Your task to perform on an android device: turn on javascript in the chrome app Image 0: 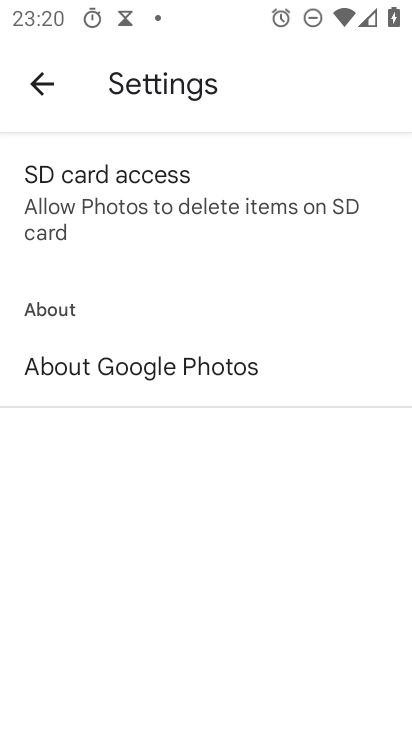
Step 0: press home button
Your task to perform on an android device: turn on javascript in the chrome app Image 1: 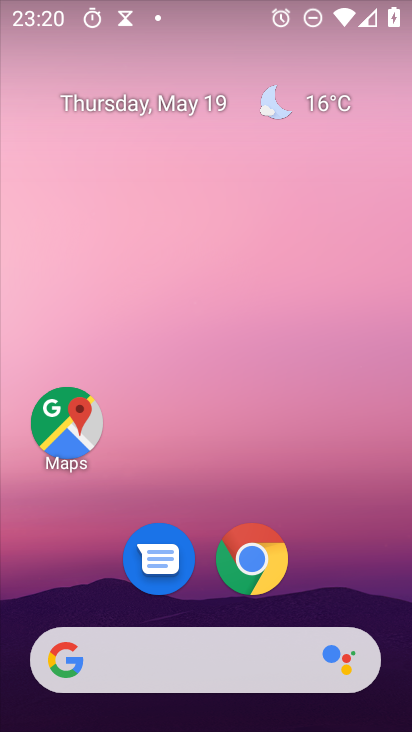
Step 1: click (254, 557)
Your task to perform on an android device: turn on javascript in the chrome app Image 2: 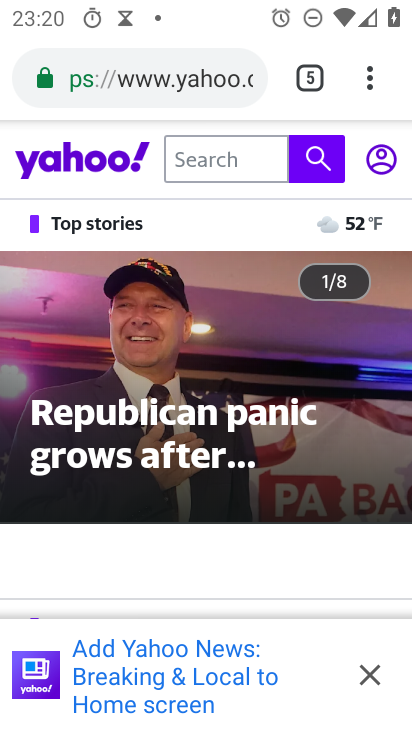
Step 2: click (369, 88)
Your task to perform on an android device: turn on javascript in the chrome app Image 3: 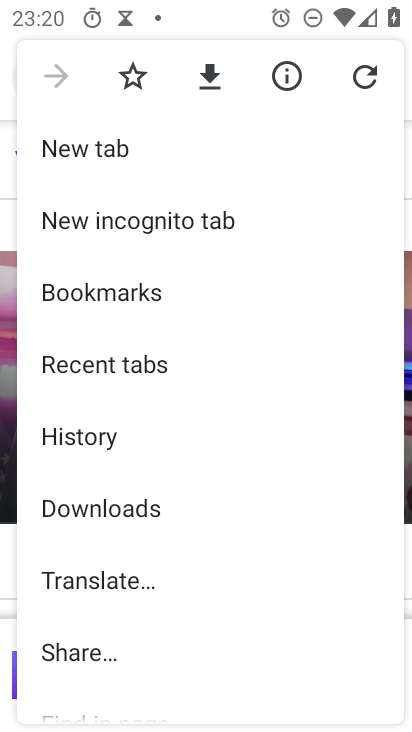
Step 3: drag from (111, 618) to (133, 287)
Your task to perform on an android device: turn on javascript in the chrome app Image 4: 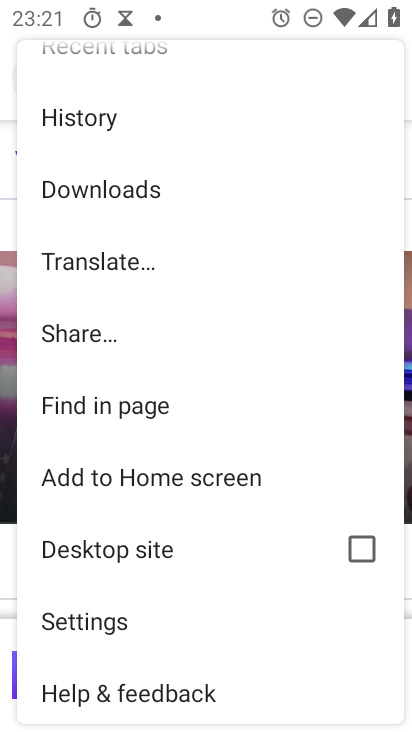
Step 4: click (103, 612)
Your task to perform on an android device: turn on javascript in the chrome app Image 5: 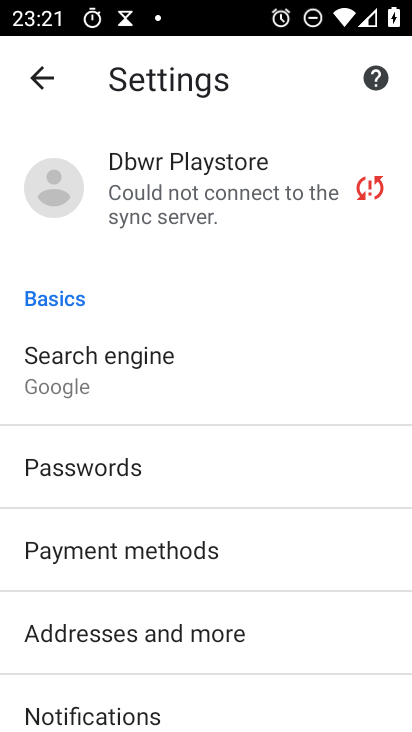
Step 5: drag from (108, 609) to (102, 393)
Your task to perform on an android device: turn on javascript in the chrome app Image 6: 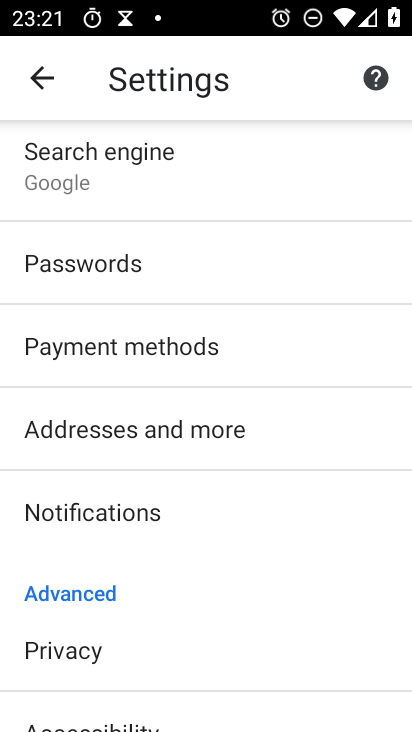
Step 6: drag from (94, 615) to (83, 346)
Your task to perform on an android device: turn on javascript in the chrome app Image 7: 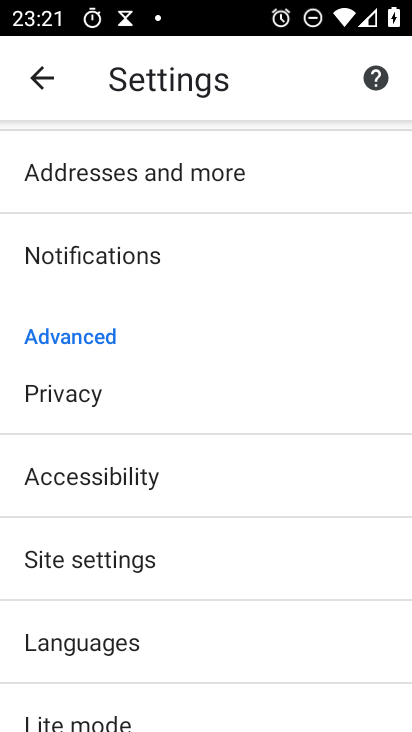
Step 7: click (83, 551)
Your task to perform on an android device: turn on javascript in the chrome app Image 8: 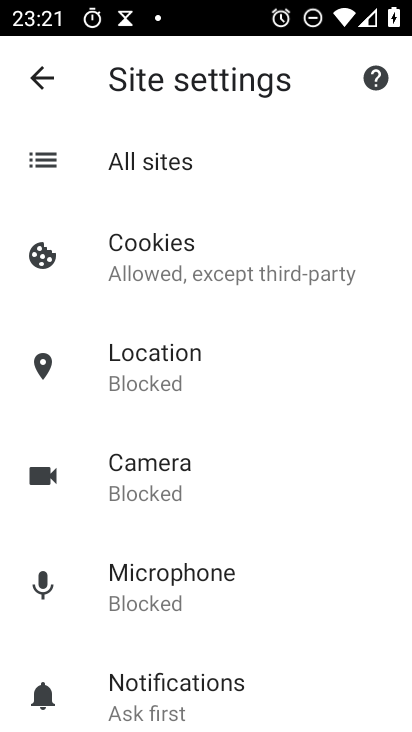
Step 8: drag from (158, 668) to (202, 325)
Your task to perform on an android device: turn on javascript in the chrome app Image 9: 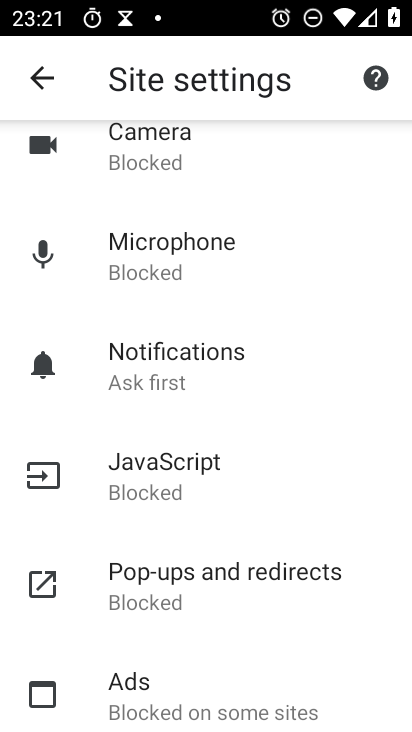
Step 9: click (158, 481)
Your task to perform on an android device: turn on javascript in the chrome app Image 10: 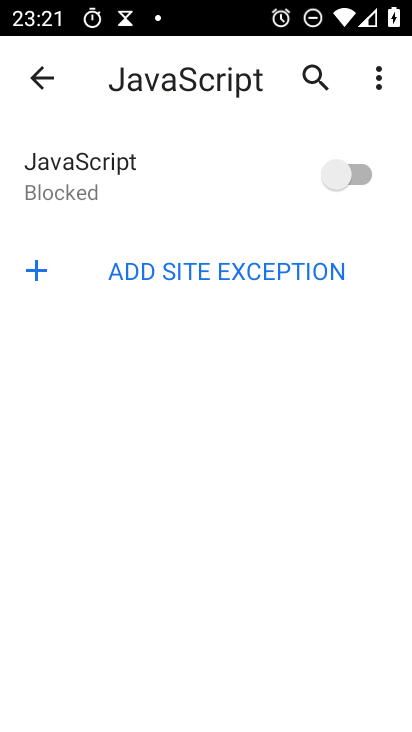
Step 10: click (365, 173)
Your task to perform on an android device: turn on javascript in the chrome app Image 11: 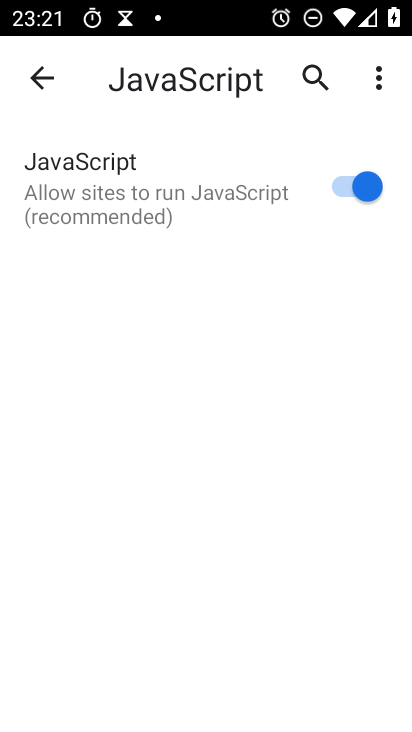
Step 11: task complete